Your task to perform on an android device: Go to privacy settings Image 0: 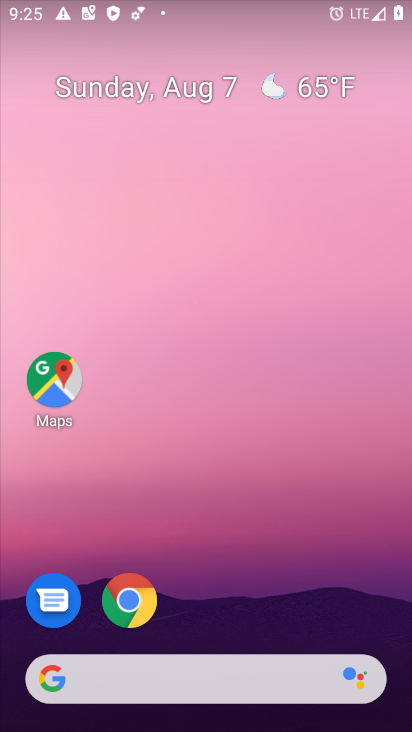
Step 0: drag from (178, 412) to (182, 113)
Your task to perform on an android device: Go to privacy settings Image 1: 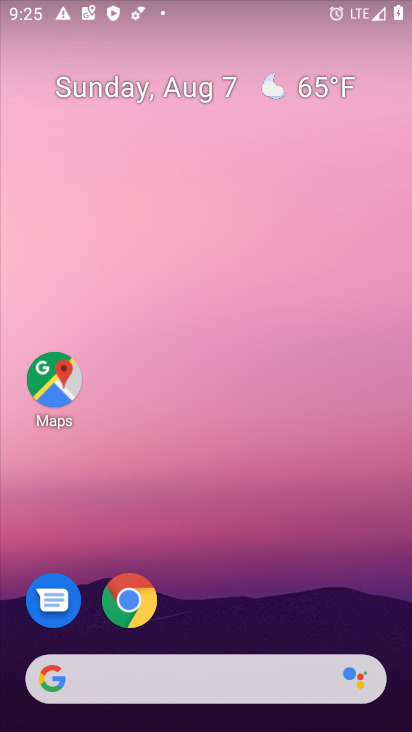
Step 1: drag from (189, 628) to (251, 19)
Your task to perform on an android device: Go to privacy settings Image 2: 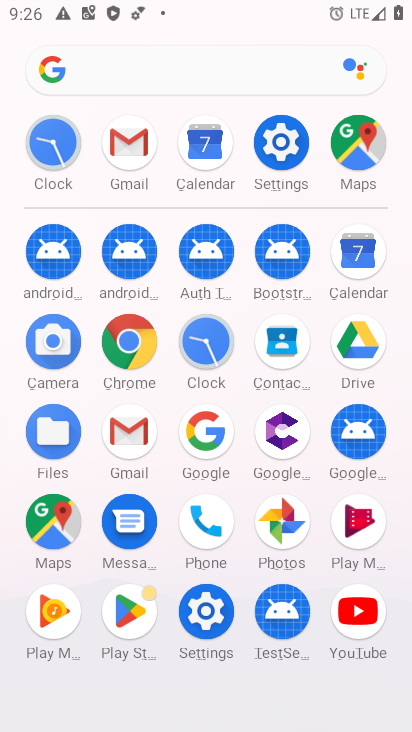
Step 2: click (281, 149)
Your task to perform on an android device: Go to privacy settings Image 3: 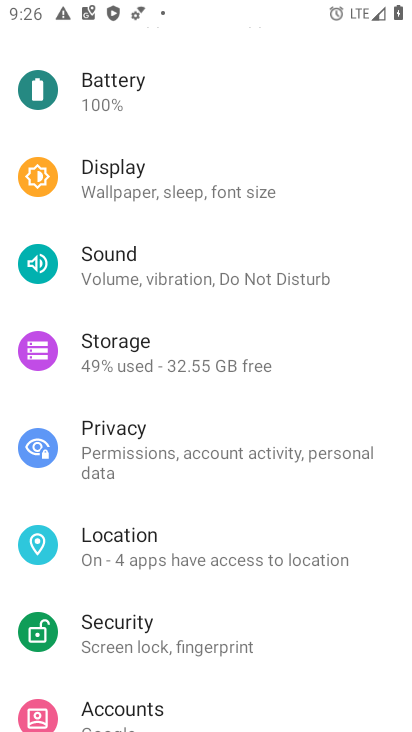
Step 3: click (145, 463)
Your task to perform on an android device: Go to privacy settings Image 4: 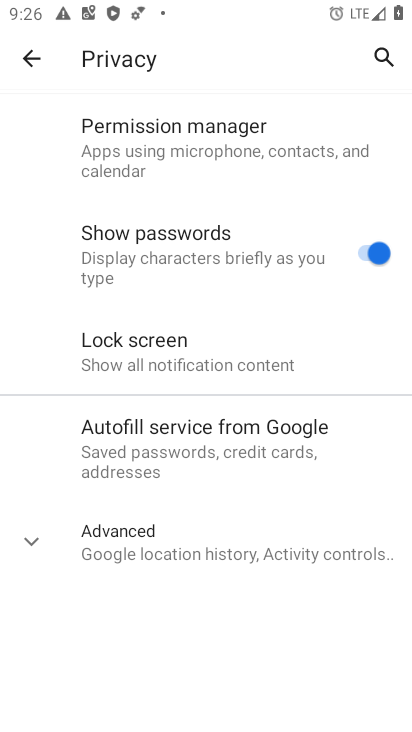
Step 4: task complete